Your task to perform on an android device: open sync settings in chrome Image 0: 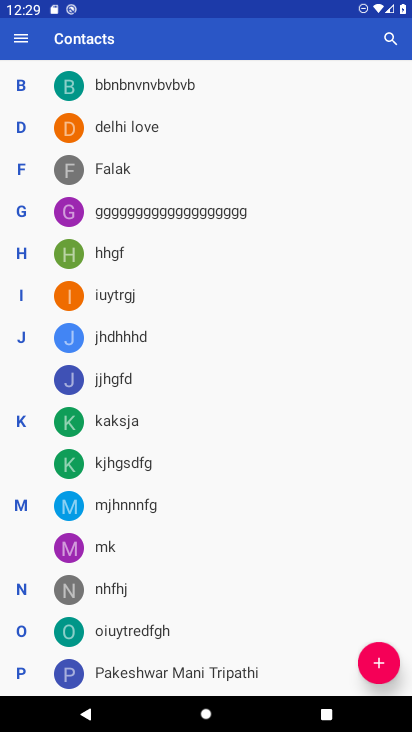
Step 0: press home button
Your task to perform on an android device: open sync settings in chrome Image 1: 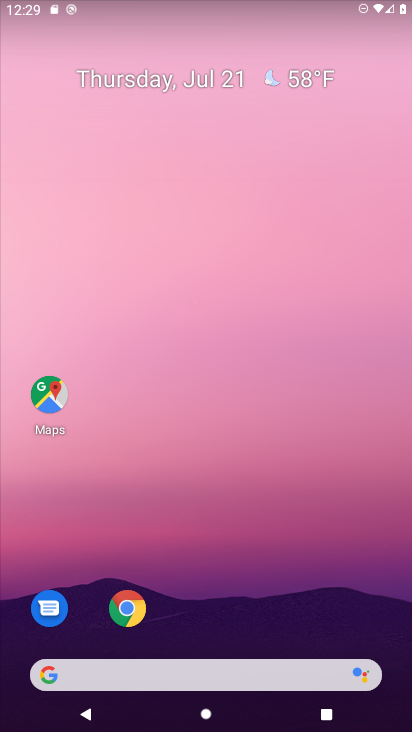
Step 1: drag from (197, 634) to (183, 31)
Your task to perform on an android device: open sync settings in chrome Image 2: 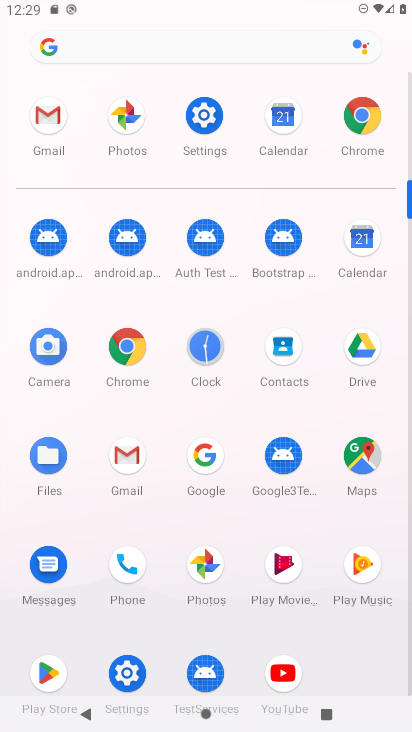
Step 2: click (349, 129)
Your task to perform on an android device: open sync settings in chrome Image 3: 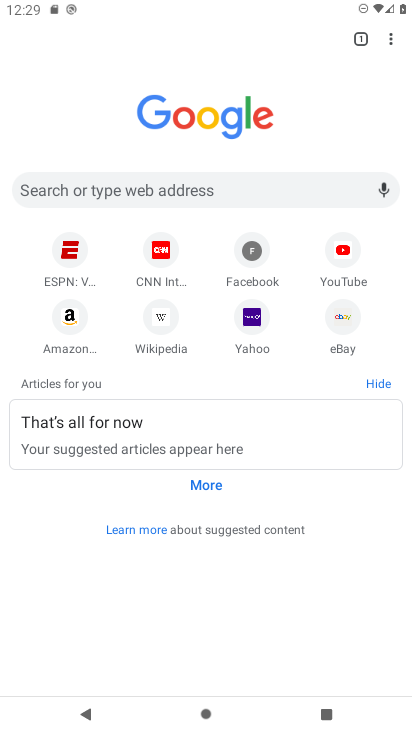
Step 3: drag from (388, 39) to (244, 322)
Your task to perform on an android device: open sync settings in chrome Image 4: 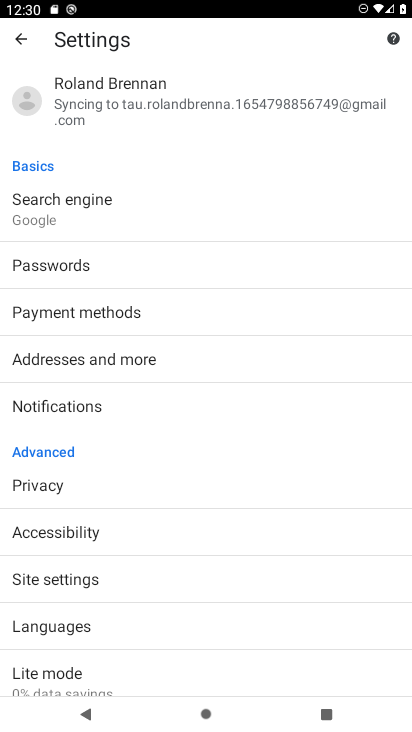
Step 4: click (162, 102)
Your task to perform on an android device: open sync settings in chrome Image 5: 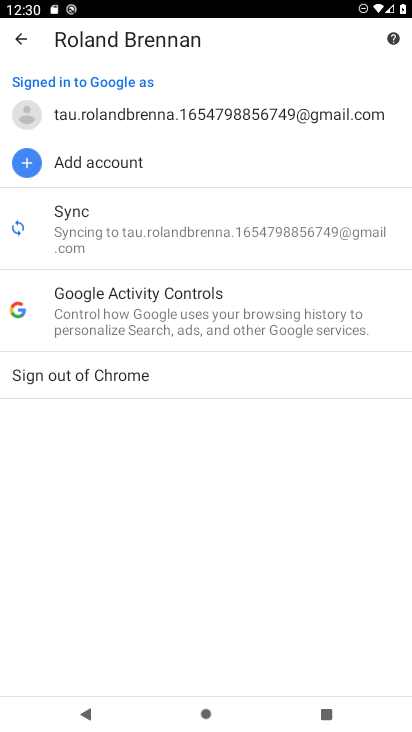
Step 5: click (72, 222)
Your task to perform on an android device: open sync settings in chrome Image 6: 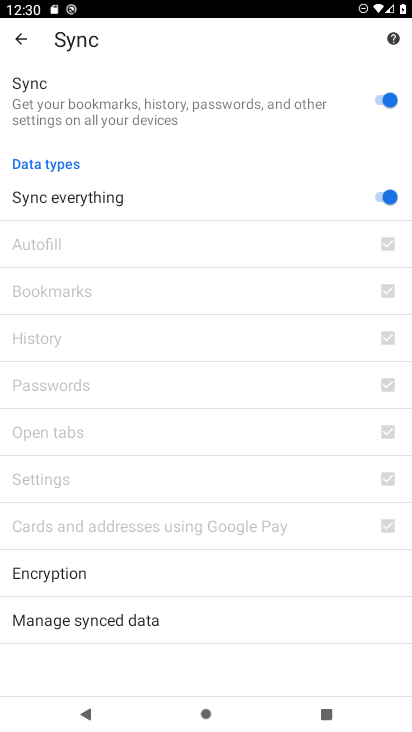
Step 6: task complete